Your task to perform on an android device: check the backup settings in the google photos Image 0: 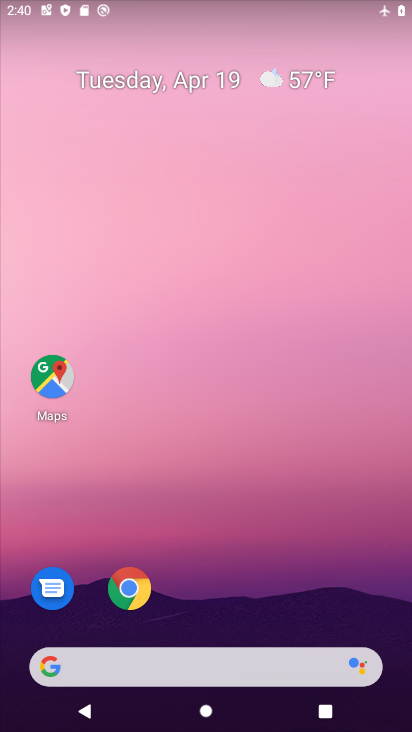
Step 0: drag from (319, 493) to (286, 149)
Your task to perform on an android device: check the backup settings in the google photos Image 1: 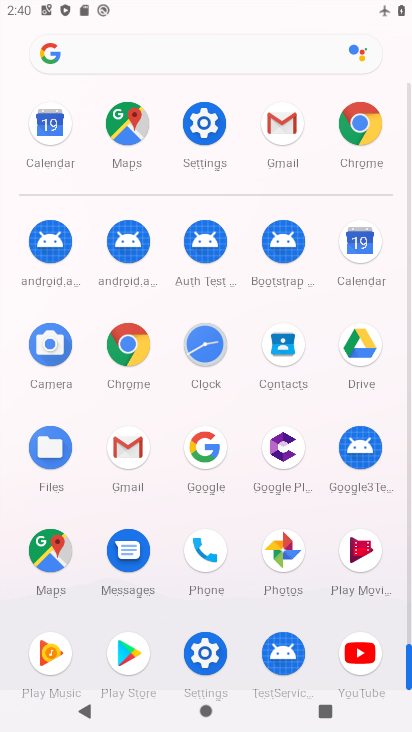
Step 1: click (288, 546)
Your task to perform on an android device: check the backup settings in the google photos Image 2: 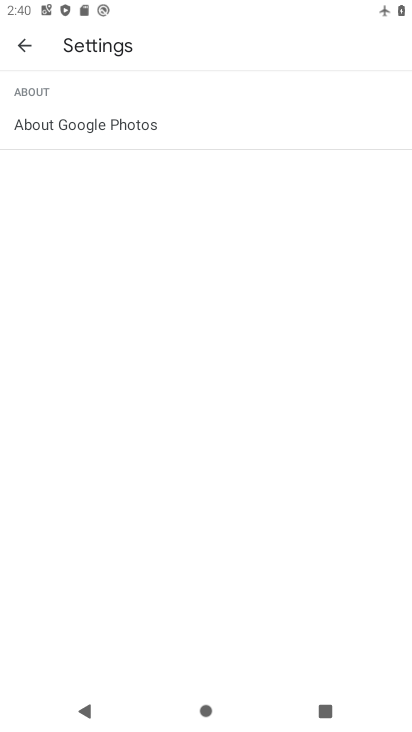
Step 2: click (110, 37)
Your task to perform on an android device: check the backup settings in the google photos Image 3: 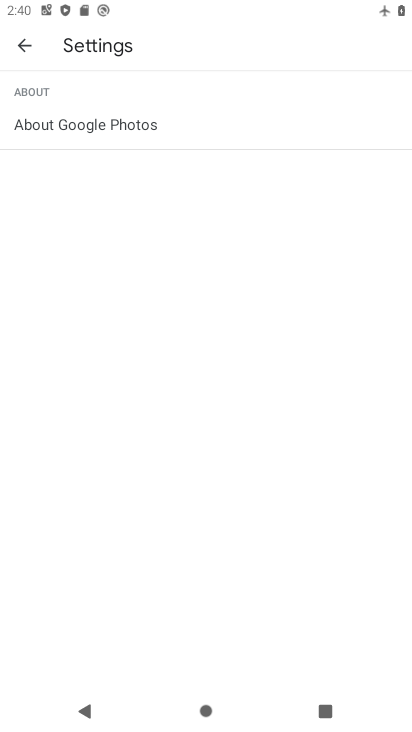
Step 3: click (29, 37)
Your task to perform on an android device: check the backup settings in the google photos Image 4: 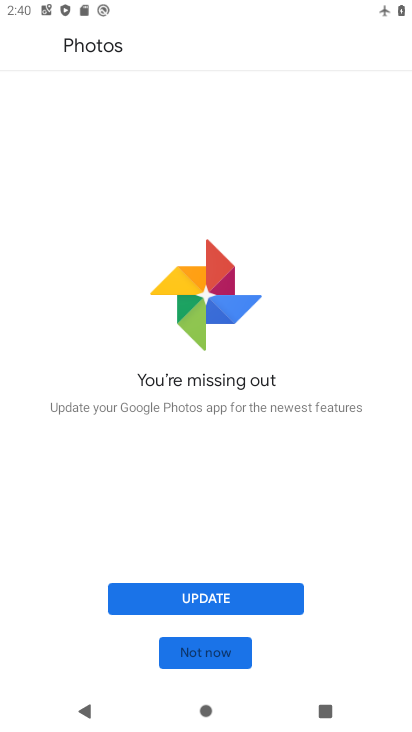
Step 4: click (233, 649)
Your task to perform on an android device: check the backup settings in the google photos Image 5: 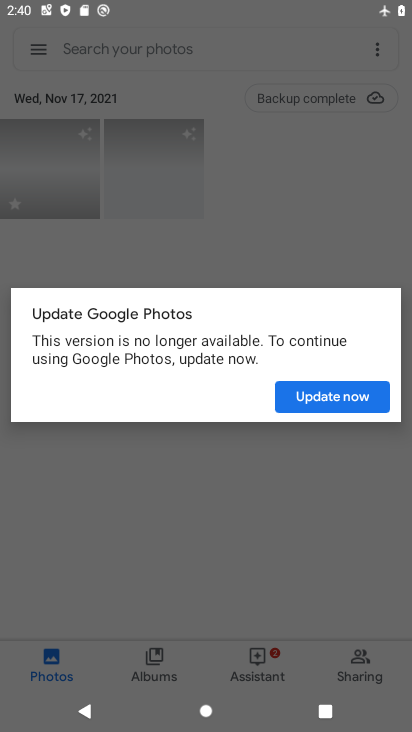
Step 5: click (365, 429)
Your task to perform on an android device: check the backup settings in the google photos Image 6: 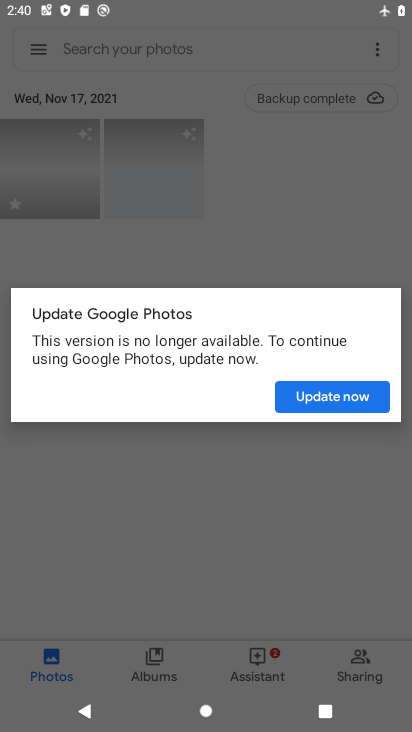
Step 6: click (370, 389)
Your task to perform on an android device: check the backup settings in the google photos Image 7: 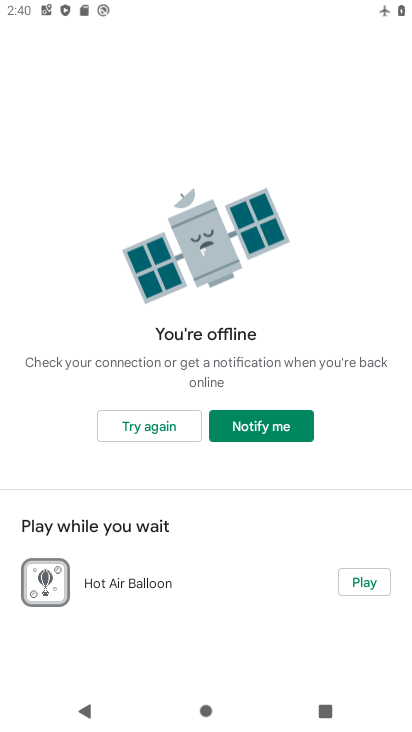
Step 7: task complete